Your task to perform on an android device: uninstall "Flipkart Online Shopping App" Image 0: 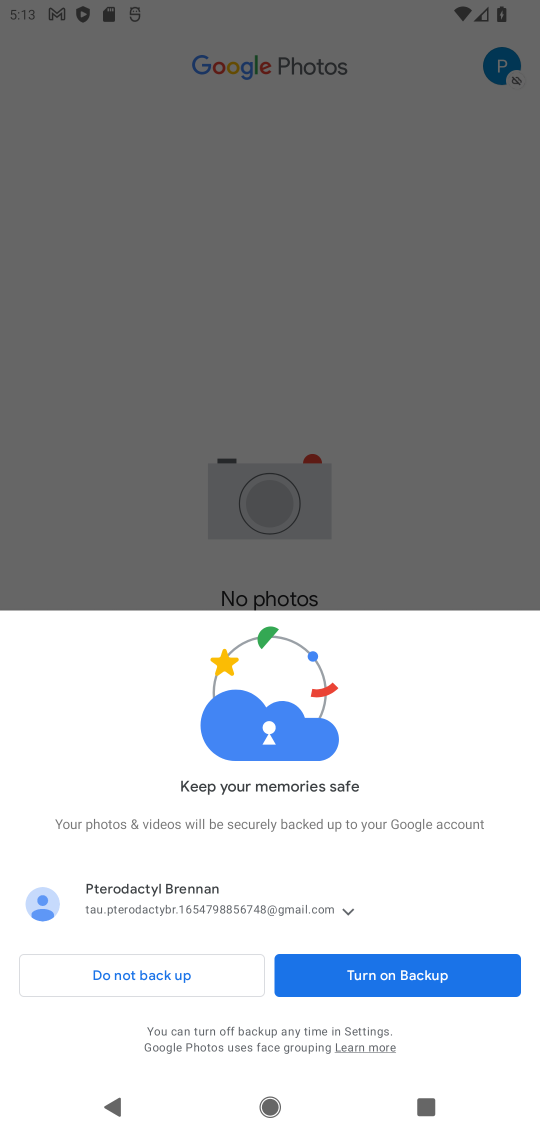
Step 0: press home button
Your task to perform on an android device: uninstall "Flipkart Online Shopping App" Image 1: 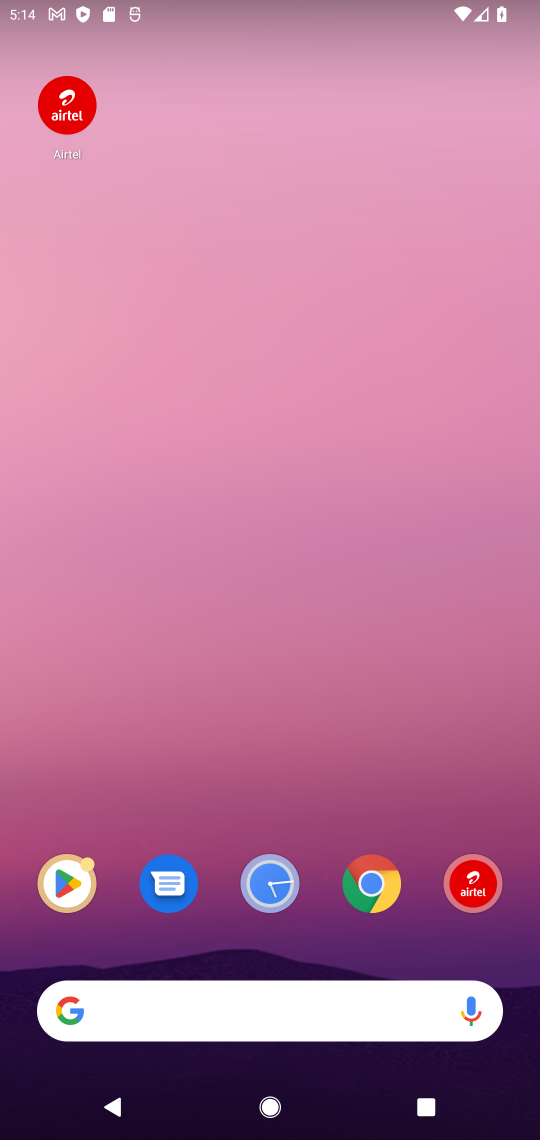
Step 1: drag from (301, 744) to (237, 268)
Your task to perform on an android device: uninstall "Flipkart Online Shopping App" Image 2: 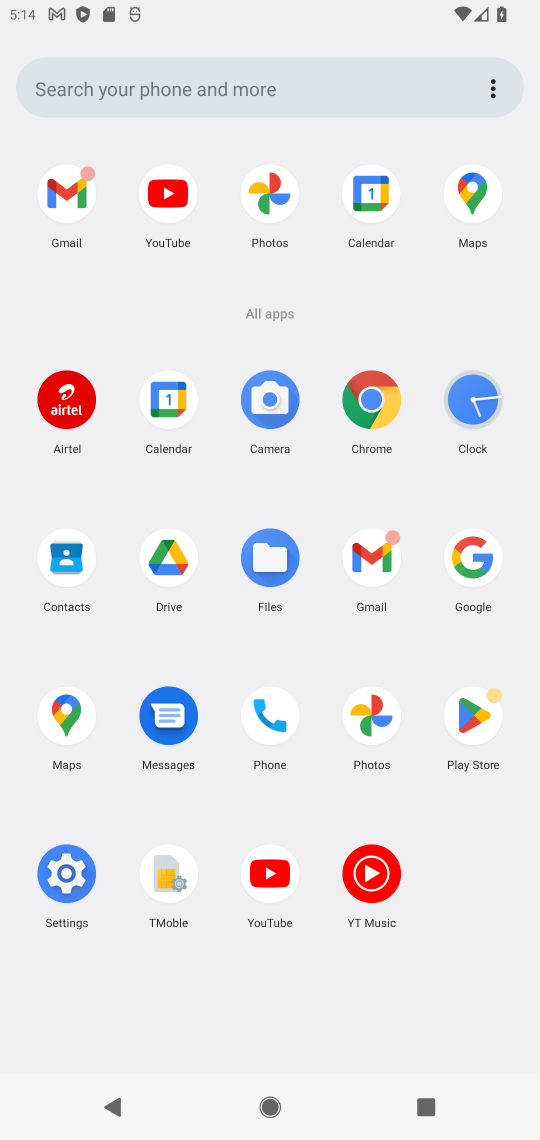
Step 2: click (469, 709)
Your task to perform on an android device: uninstall "Flipkart Online Shopping App" Image 3: 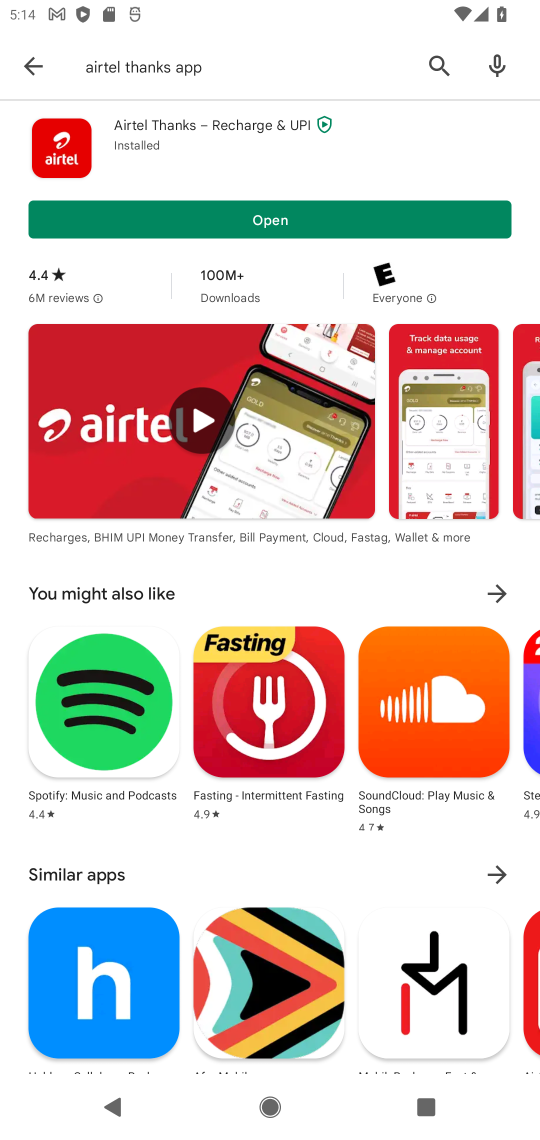
Step 3: click (27, 74)
Your task to perform on an android device: uninstall "Flipkart Online Shopping App" Image 4: 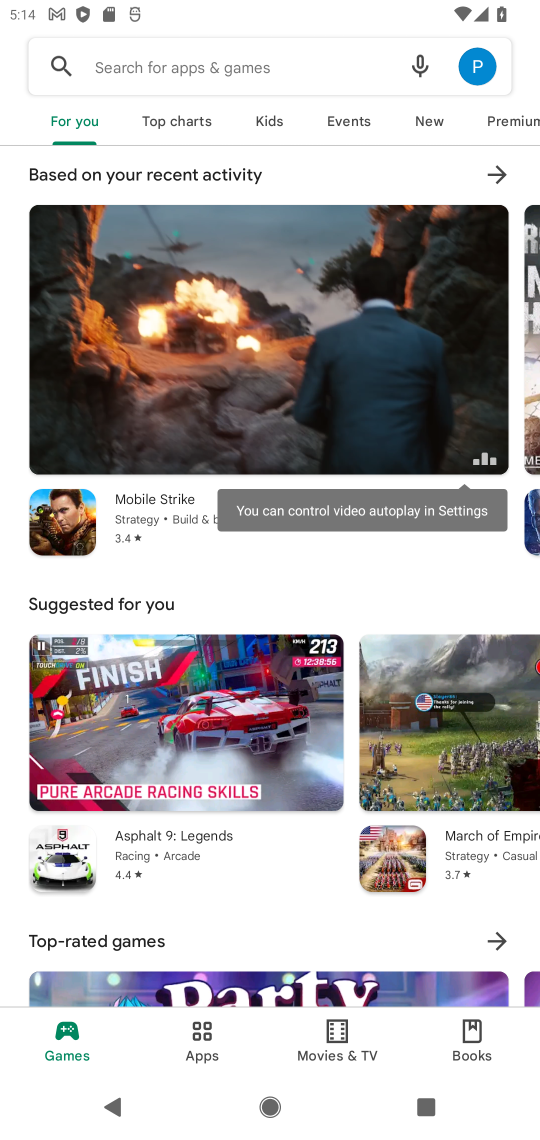
Step 4: click (206, 55)
Your task to perform on an android device: uninstall "Flipkart Online Shopping App" Image 5: 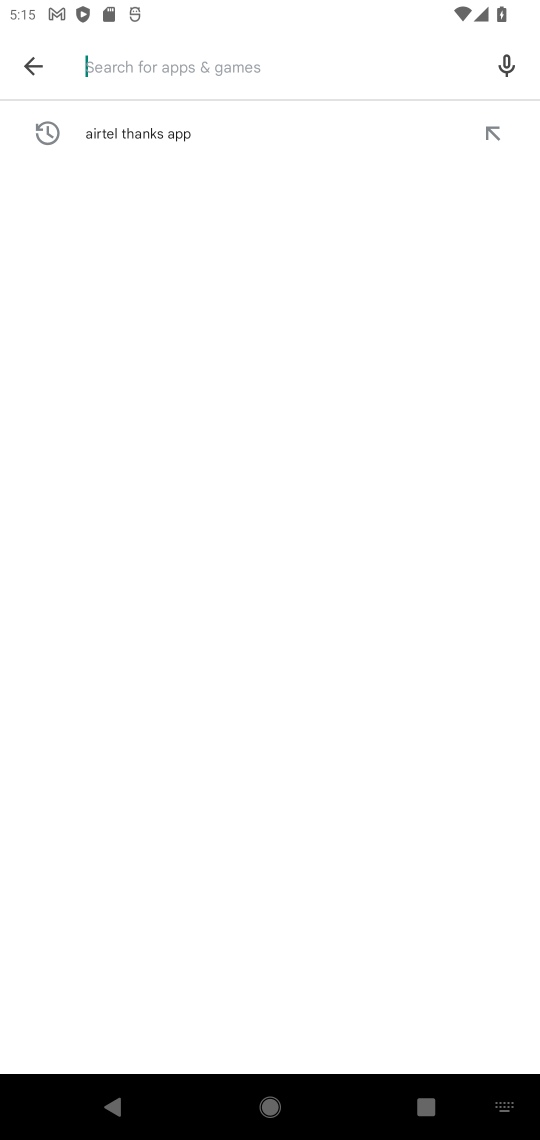
Step 5: click (188, 65)
Your task to perform on an android device: uninstall "Flipkart Online Shopping App" Image 6: 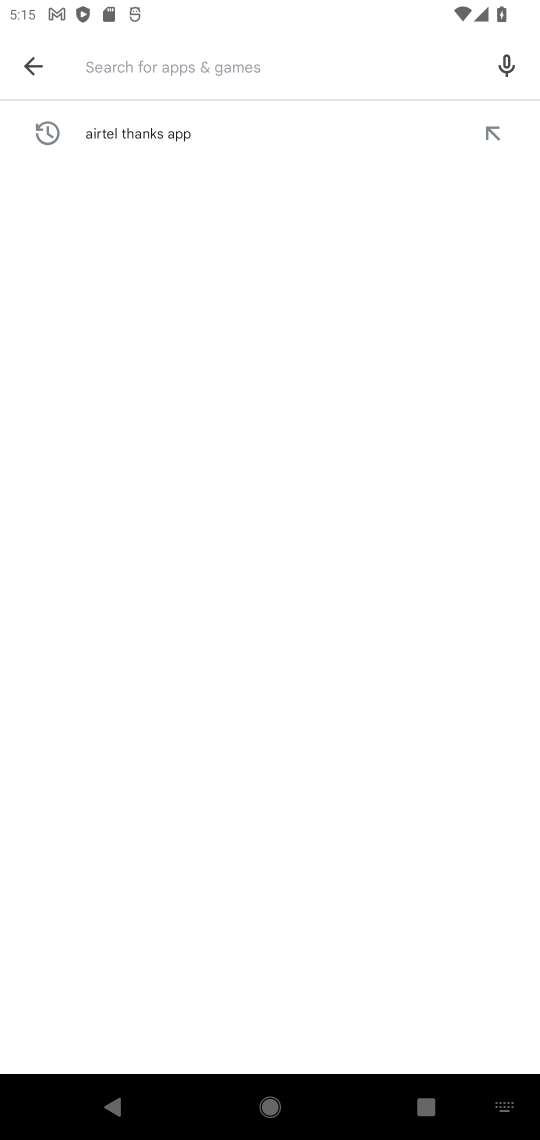
Step 6: type "Flipkart Online Shopping App"
Your task to perform on an android device: uninstall "Flipkart Online Shopping App" Image 7: 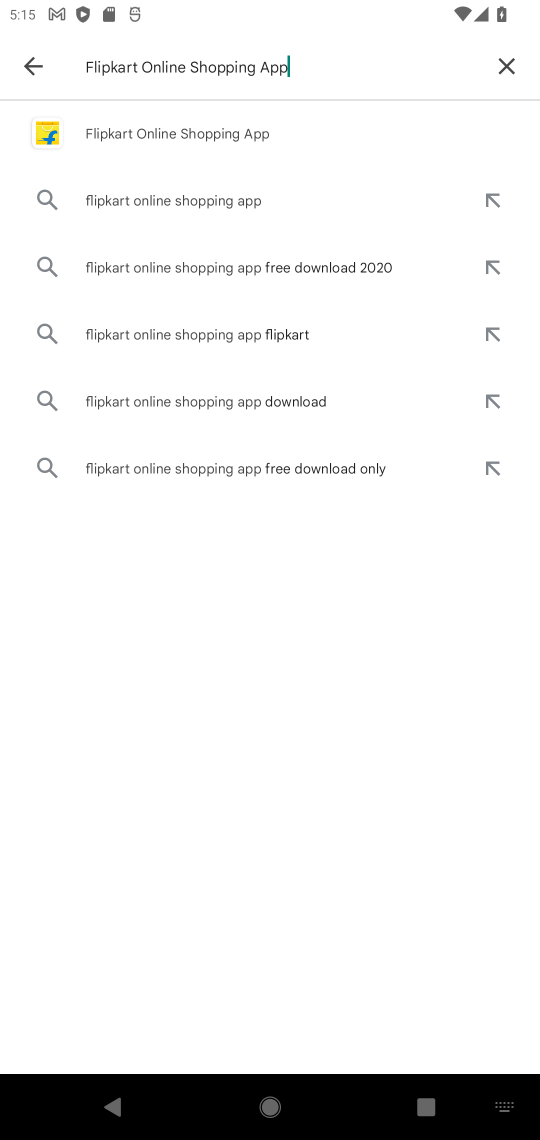
Step 7: click (191, 120)
Your task to perform on an android device: uninstall "Flipkart Online Shopping App" Image 8: 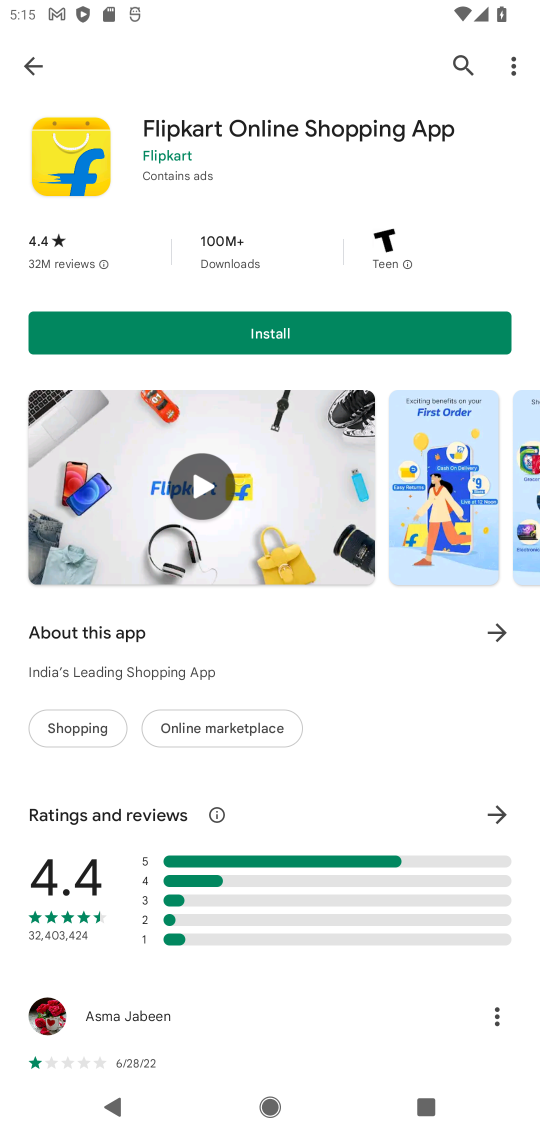
Step 8: click (270, 326)
Your task to perform on an android device: uninstall "Flipkart Online Shopping App" Image 9: 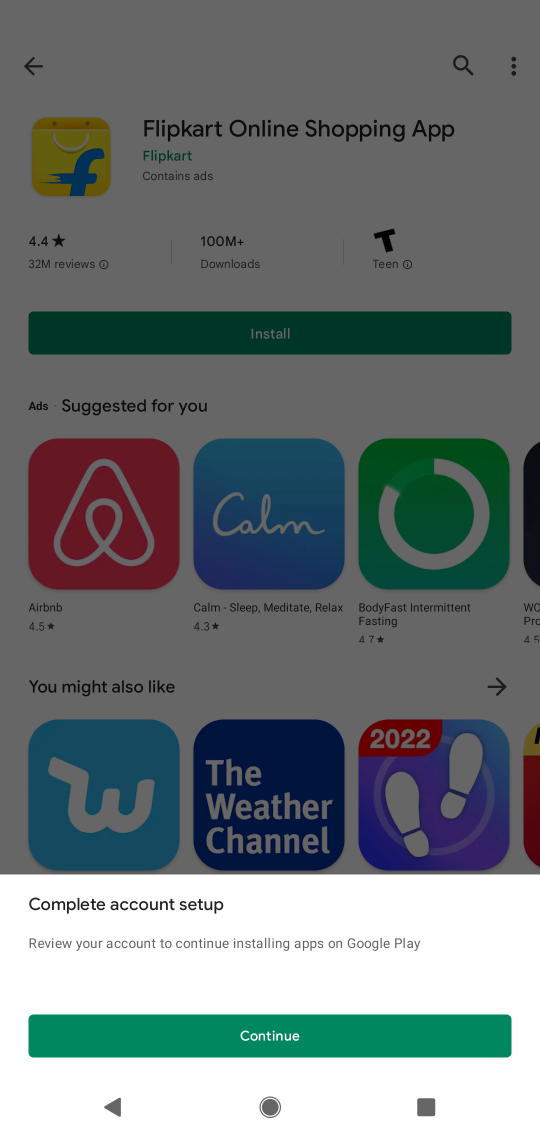
Step 9: click (253, 1035)
Your task to perform on an android device: uninstall "Flipkart Online Shopping App" Image 10: 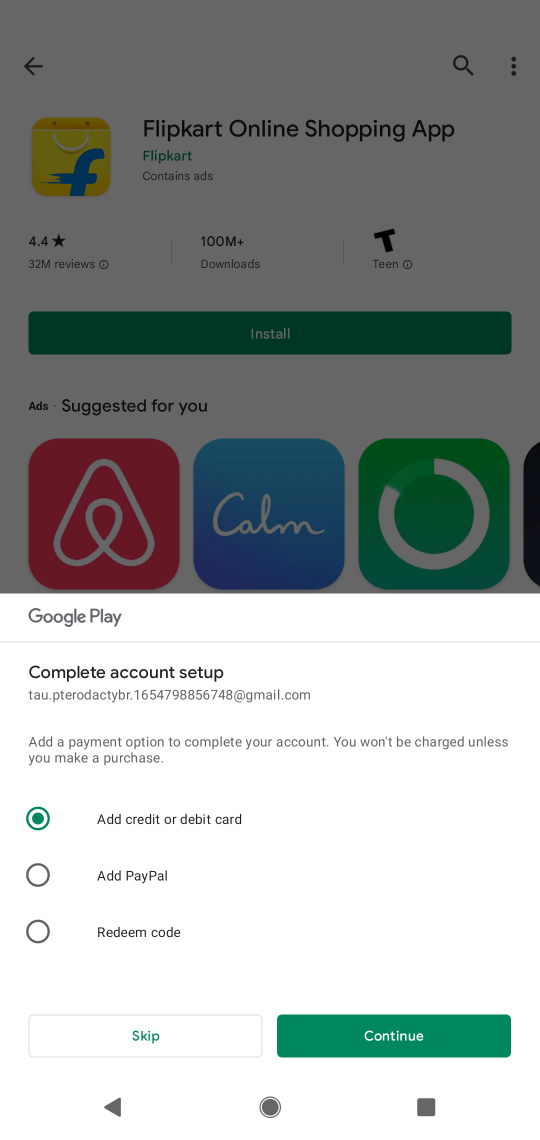
Step 10: click (109, 1035)
Your task to perform on an android device: uninstall "Flipkart Online Shopping App" Image 11: 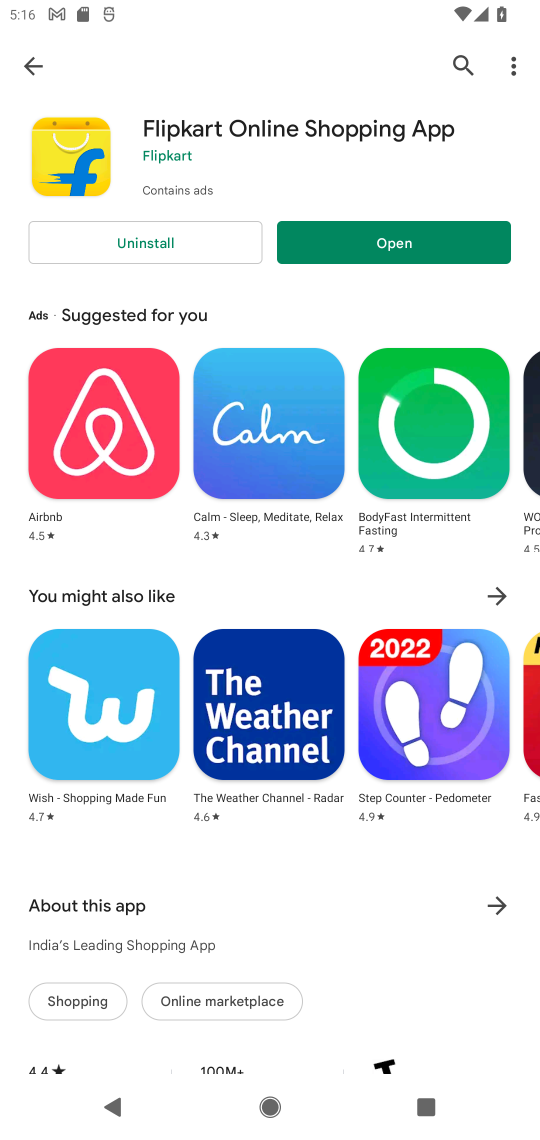
Step 11: click (151, 238)
Your task to perform on an android device: uninstall "Flipkart Online Shopping App" Image 12: 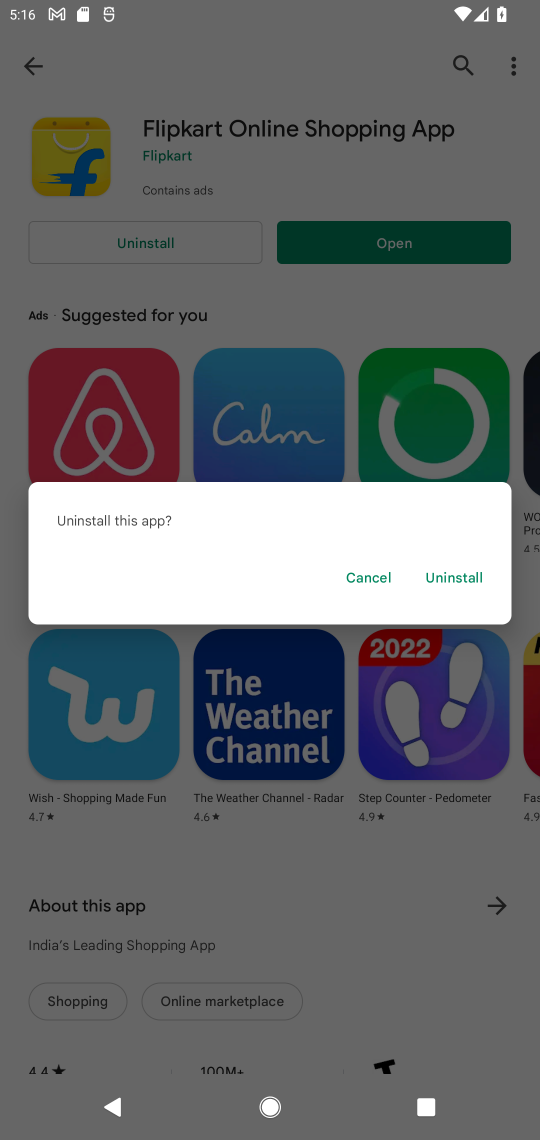
Step 12: click (440, 568)
Your task to perform on an android device: uninstall "Flipkart Online Shopping App" Image 13: 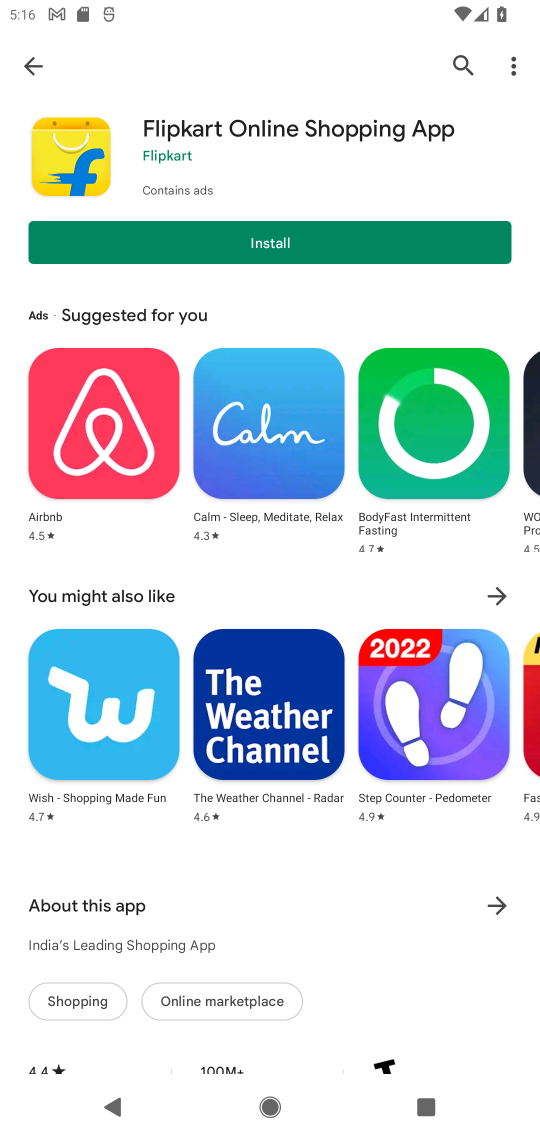
Step 13: task complete